Your task to perform on an android device: Is it going to rain tomorrow? Image 0: 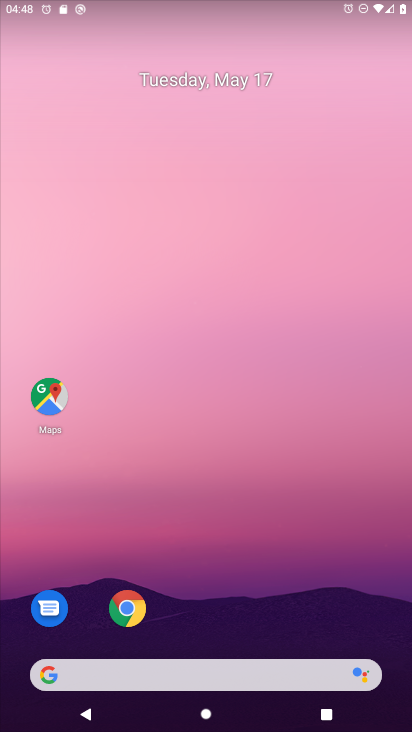
Step 0: drag from (167, 660) to (269, 388)
Your task to perform on an android device: Is it going to rain tomorrow? Image 1: 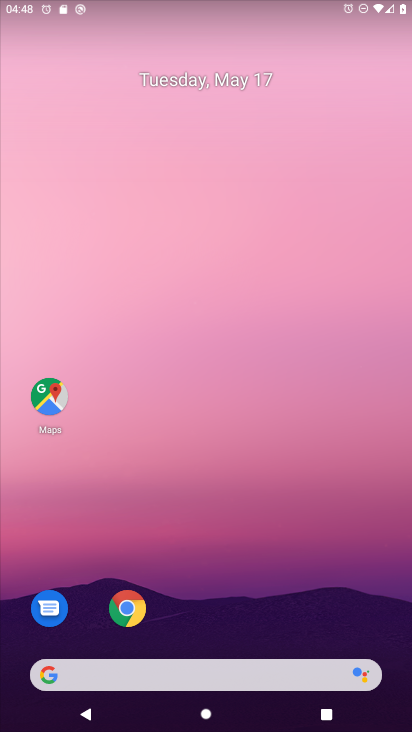
Step 1: drag from (223, 660) to (282, 421)
Your task to perform on an android device: Is it going to rain tomorrow? Image 2: 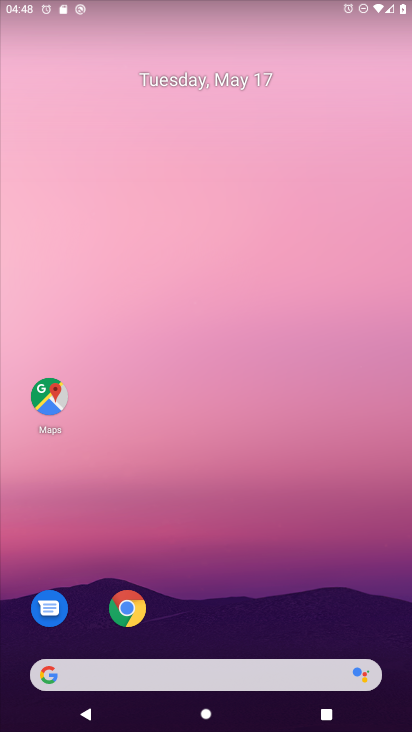
Step 2: drag from (311, 636) to (309, 243)
Your task to perform on an android device: Is it going to rain tomorrow? Image 3: 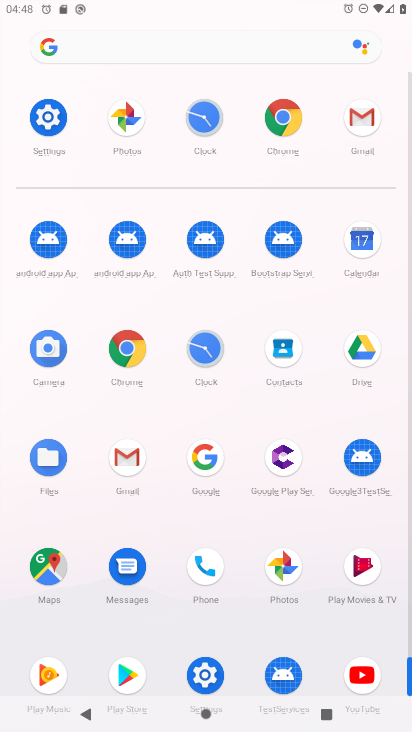
Step 3: click (207, 459)
Your task to perform on an android device: Is it going to rain tomorrow? Image 4: 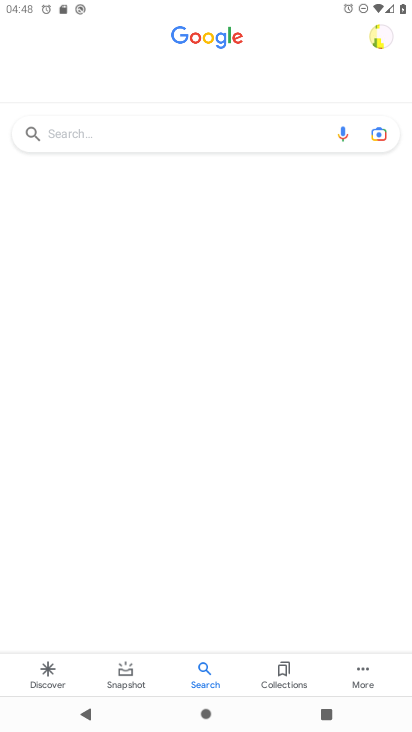
Step 4: click (88, 135)
Your task to perform on an android device: Is it going to rain tomorrow? Image 5: 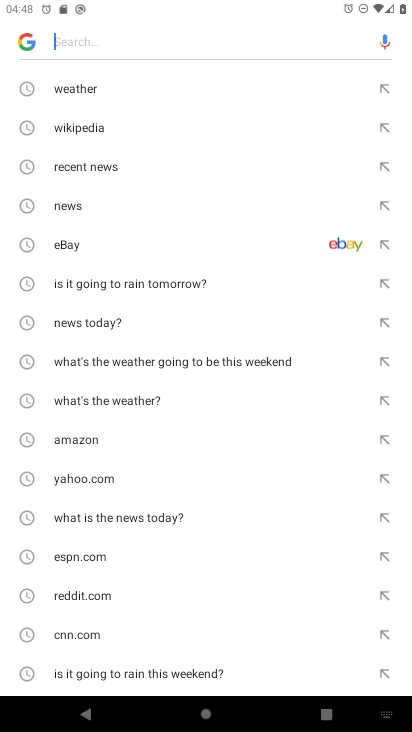
Step 5: click (135, 286)
Your task to perform on an android device: Is it going to rain tomorrow? Image 6: 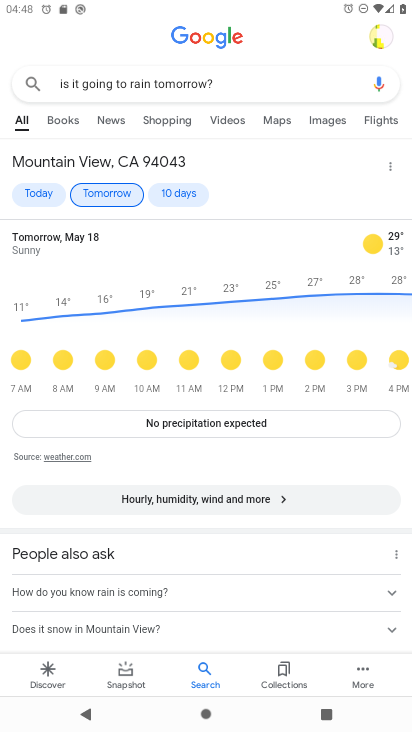
Step 6: click (193, 501)
Your task to perform on an android device: Is it going to rain tomorrow? Image 7: 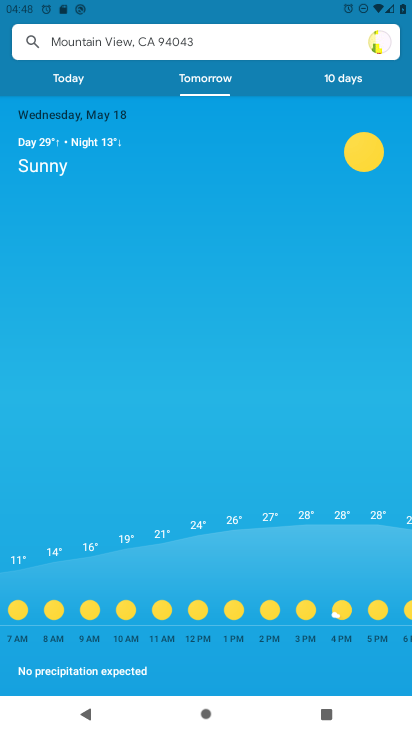
Step 7: task complete